Your task to perform on an android device: turn on bluetooth scan Image 0: 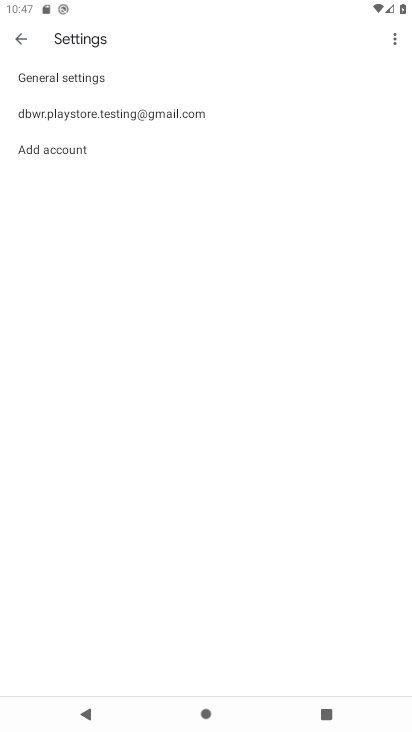
Step 0: press home button
Your task to perform on an android device: turn on bluetooth scan Image 1: 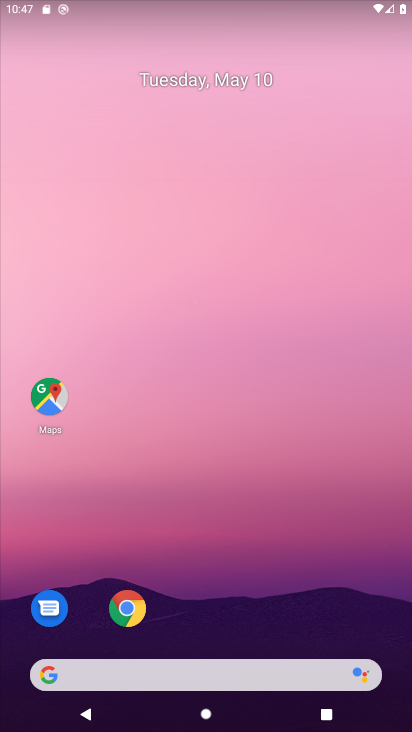
Step 1: drag from (180, 667) to (252, 86)
Your task to perform on an android device: turn on bluetooth scan Image 2: 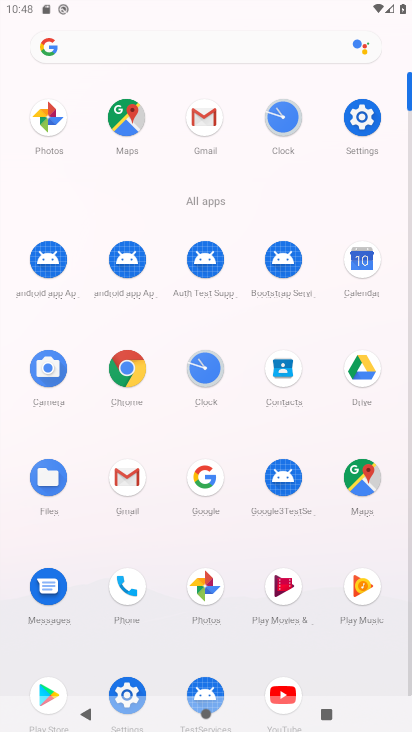
Step 2: click (355, 138)
Your task to perform on an android device: turn on bluetooth scan Image 3: 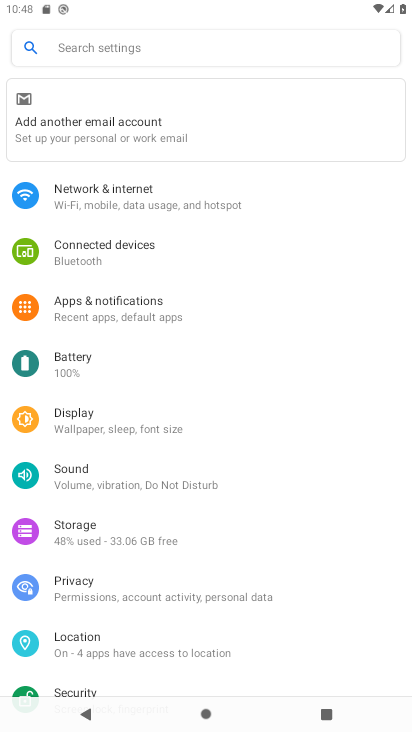
Step 3: click (105, 644)
Your task to perform on an android device: turn on bluetooth scan Image 4: 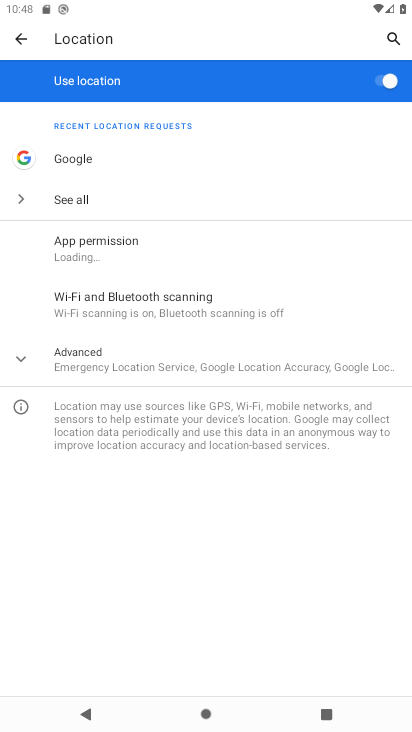
Step 4: click (121, 316)
Your task to perform on an android device: turn on bluetooth scan Image 5: 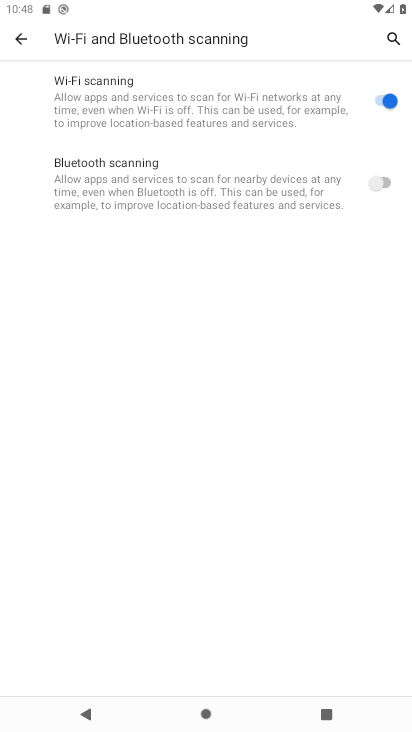
Step 5: click (383, 178)
Your task to perform on an android device: turn on bluetooth scan Image 6: 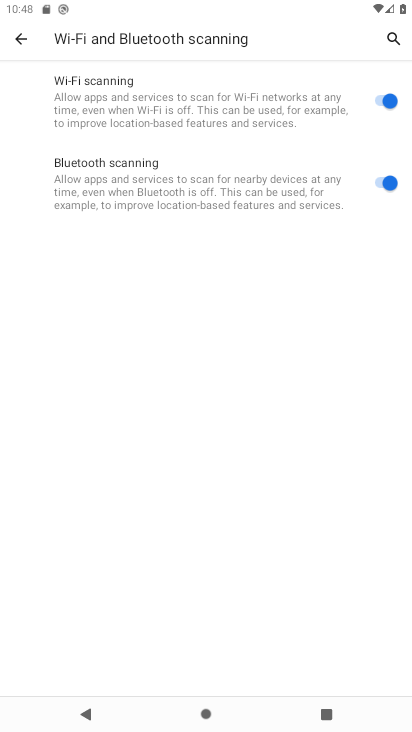
Step 6: task complete